Your task to perform on an android device: toggle location history Image 0: 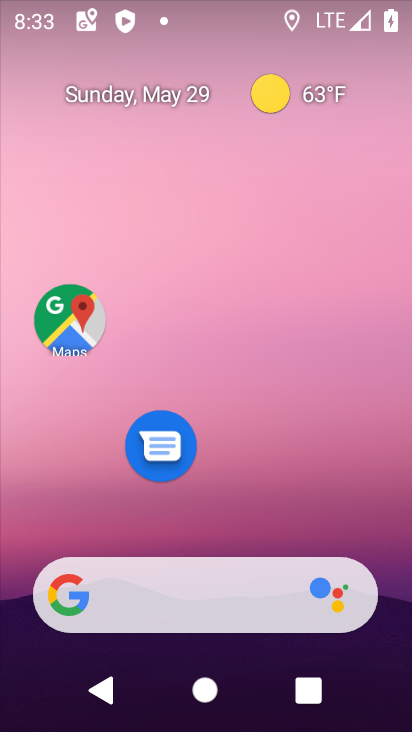
Step 0: drag from (206, 516) to (234, 103)
Your task to perform on an android device: toggle location history Image 1: 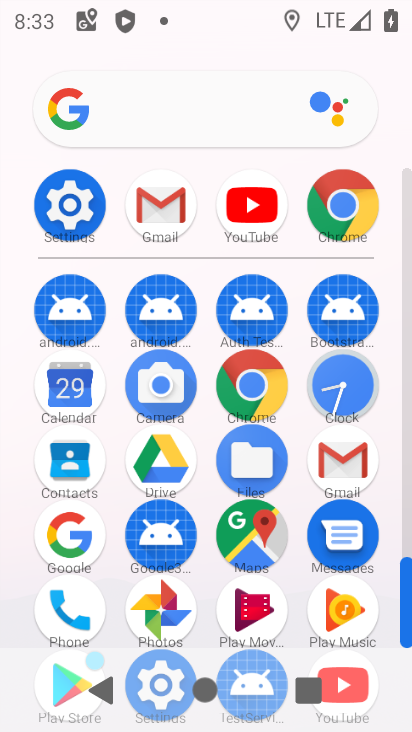
Step 1: click (104, 210)
Your task to perform on an android device: toggle location history Image 2: 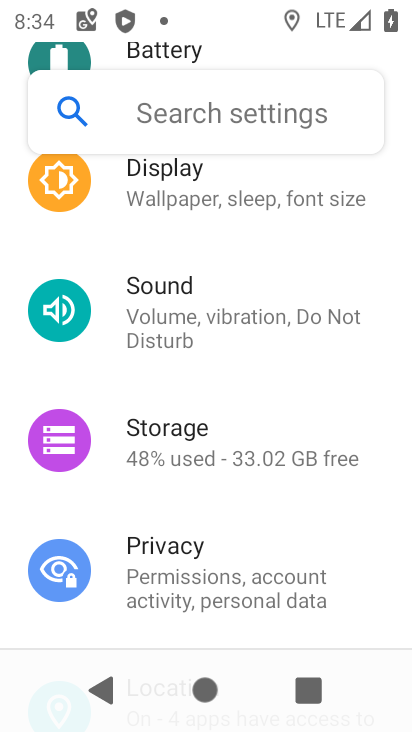
Step 2: drag from (210, 484) to (202, 197)
Your task to perform on an android device: toggle location history Image 3: 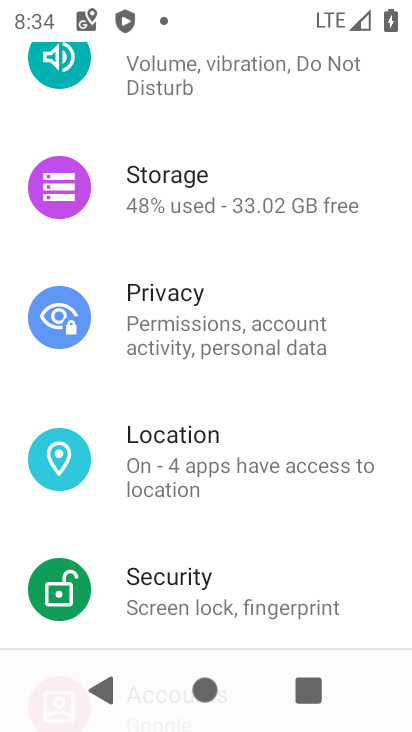
Step 3: click (251, 442)
Your task to perform on an android device: toggle location history Image 4: 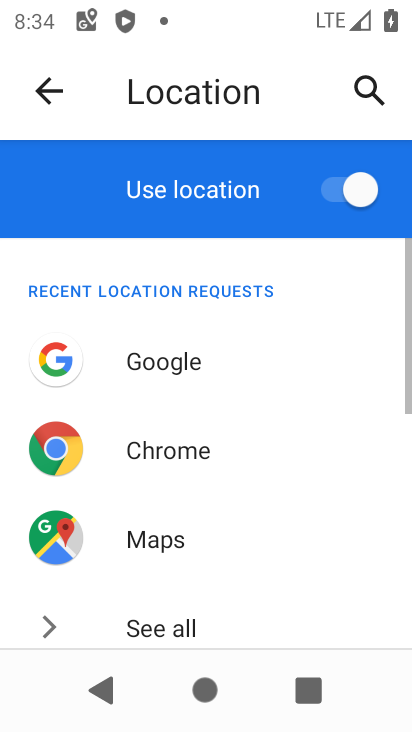
Step 4: click (330, 198)
Your task to perform on an android device: toggle location history Image 5: 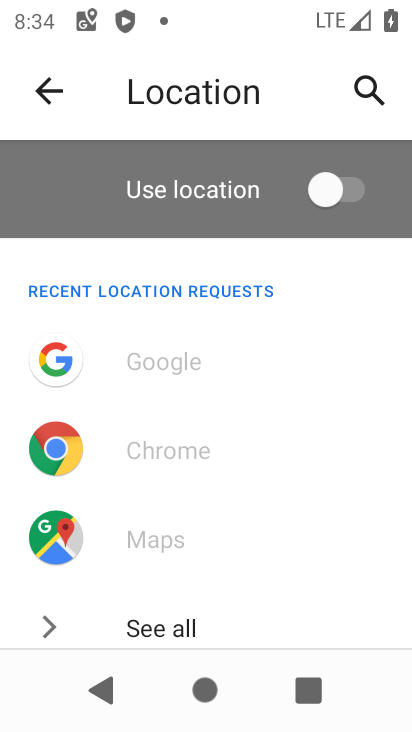
Step 5: click (357, 188)
Your task to perform on an android device: toggle location history Image 6: 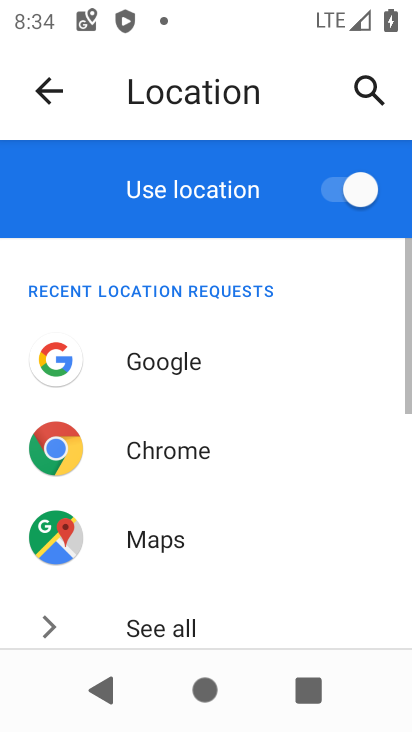
Step 6: drag from (268, 510) to (241, 184)
Your task to perform on an android device: toggle location history Image 7: 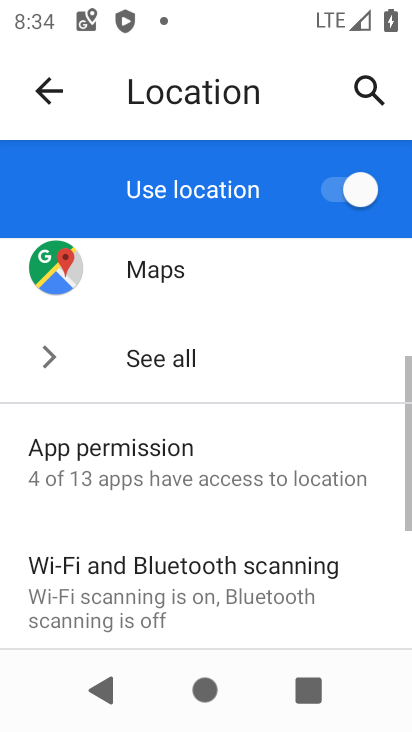
Step 7: drag from (266, 417) to (246, 179)
Your task to perform on an android device: toggle location history Image 8: 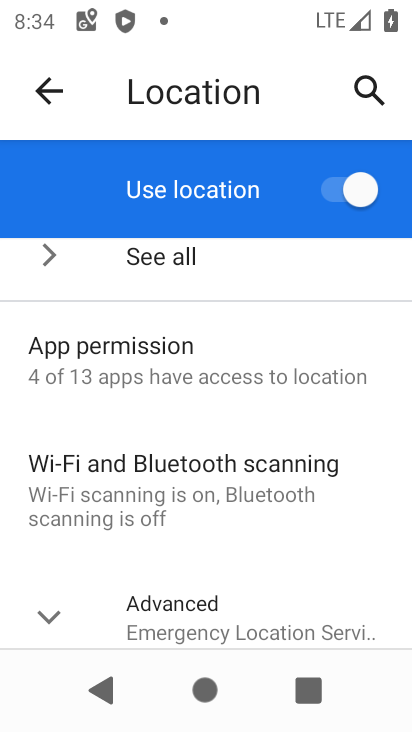
Step 8: click (256, 589)
Your task to perform on an android device: toggle location history Image 9: 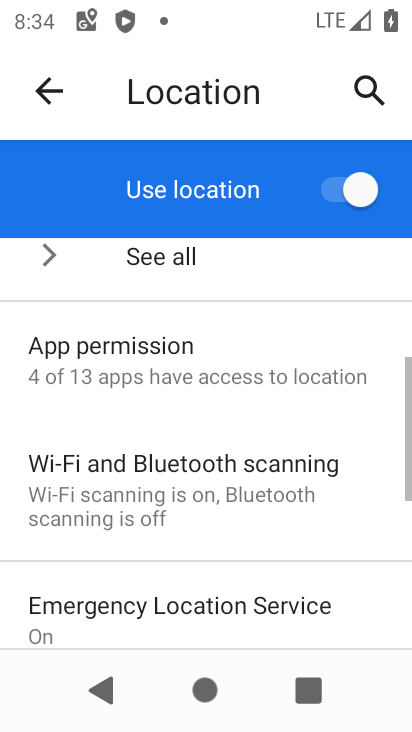
Step 9: drag from (251, 584) to (291, 313)
Your task to perform on an android device: toggle location history Image 10: 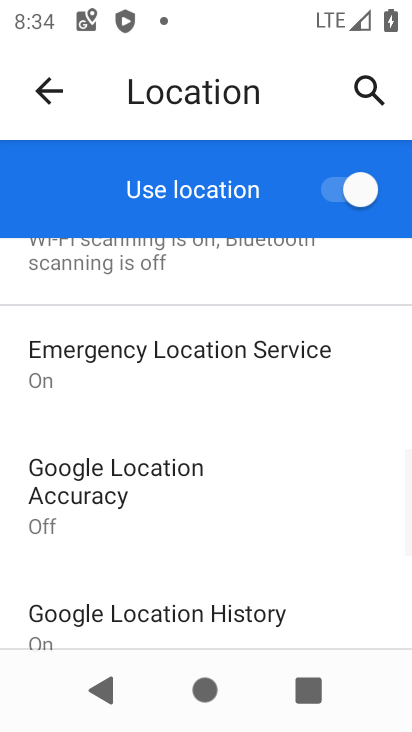
Step 10: drag from (204, 587) to (200, 436)
Your task to perform on an android device: toggle location history Image 11: 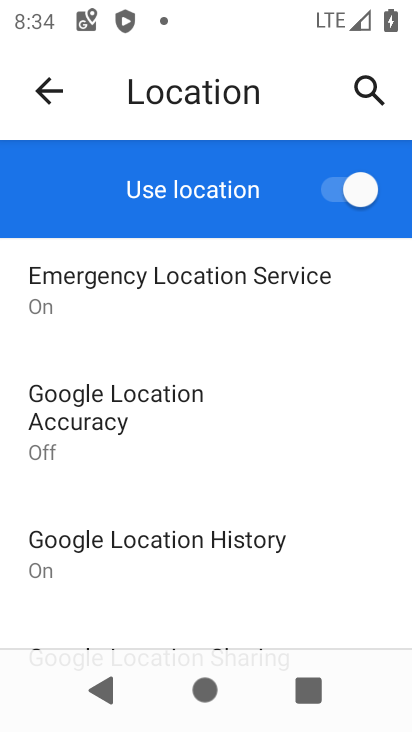
Step 11: click (205, 556)
Your task to perform on an android device: toggle location history Image 12: 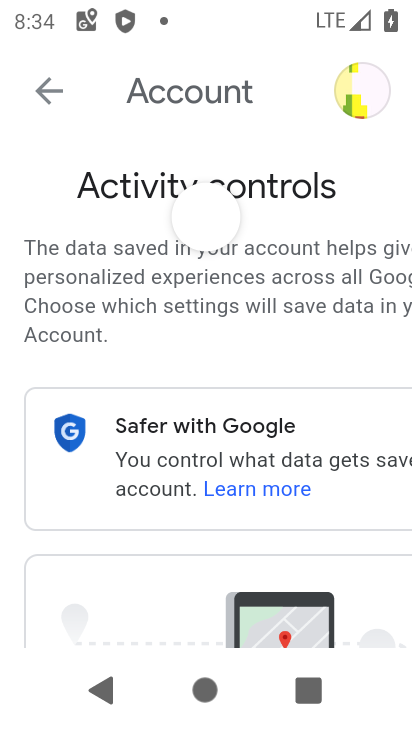
Step 12: drag from (213, 554) to (217, 263)
Your task to perform on an android device: toggle location history Image 13: 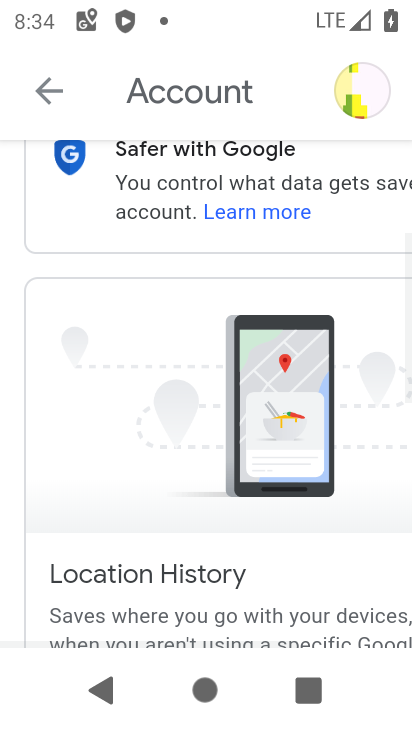
Step 13: drag from (258, 593) to (245, 377)
Your task to perform on an android device: toggle location history Image 14: 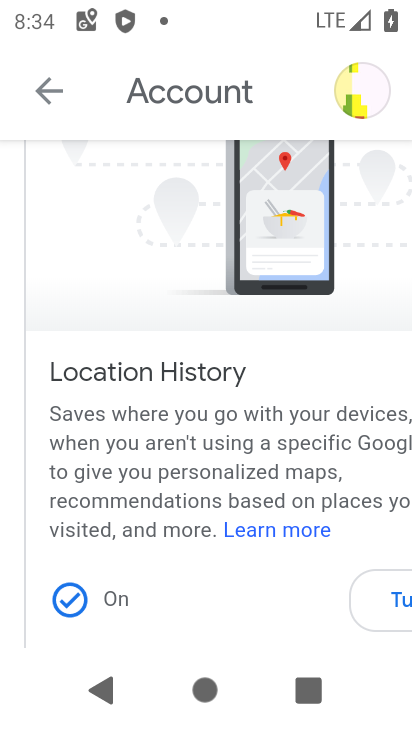
Step 14: click (369, 589)
Your task to perform on an android device: toggle location history Image 15: 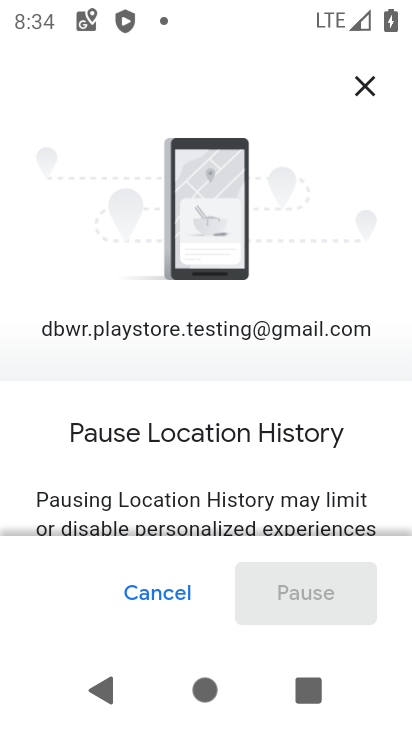
Step 15: drag from (328, 425) to (309, 150)
Your task to perform on an android device: toggle location history Image 16: 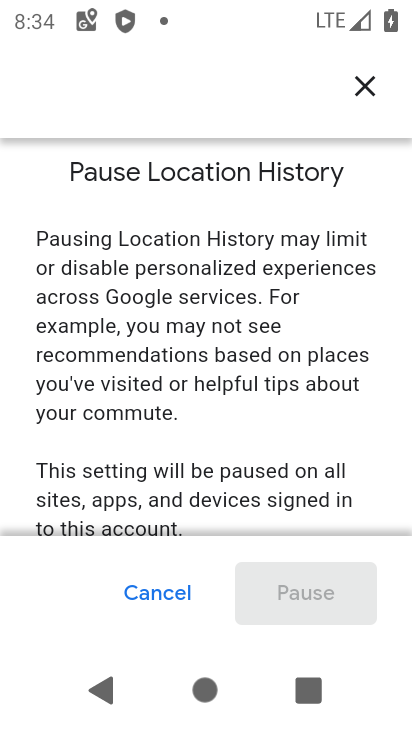
Step 16: drag from (336, 462) to (302, 168)
Your task to perform on an android device: toggle location history Image 17: 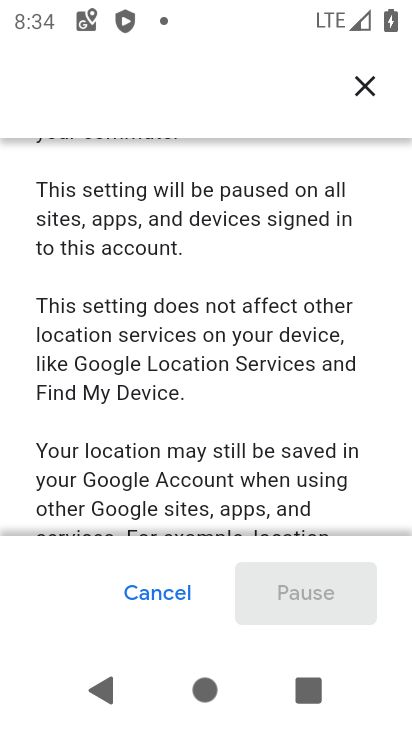
Step 17: drag from (313, 398) to (313, 181)
Your task to perform on an android device: toggle location history Image 18: 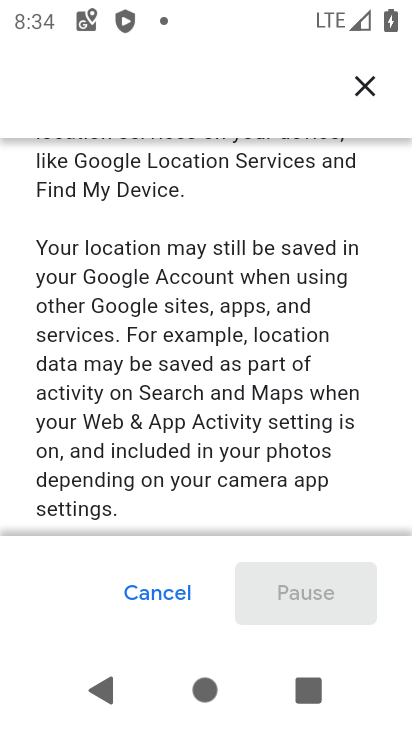
Step 18: drag from (341, 456) to (325, 246)
Your task to perform on an android device: toggle location history Image 19: 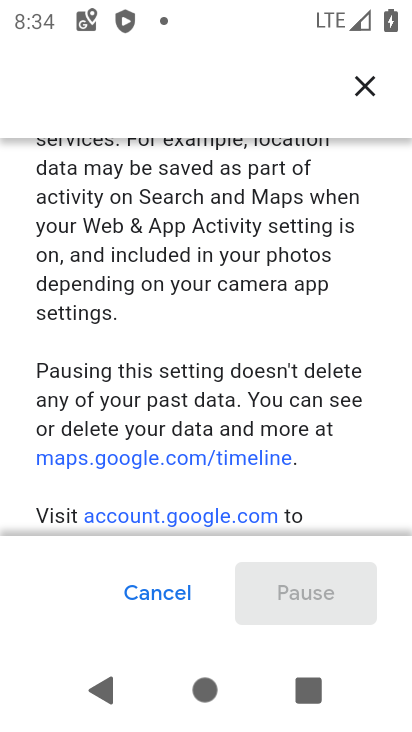
Step 19: drag from (324, 475) to (327, 241)
Your task to perform on an android device: toggle location history Image 20: 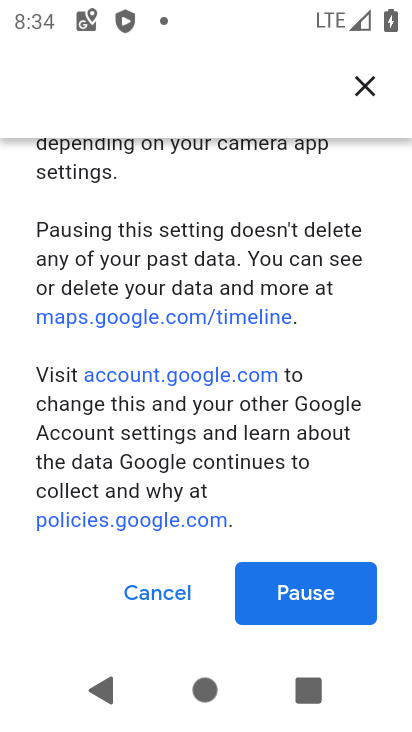
Step 20: click (314, 577)
Your task to perform on an android device: toggle location history Image 21: 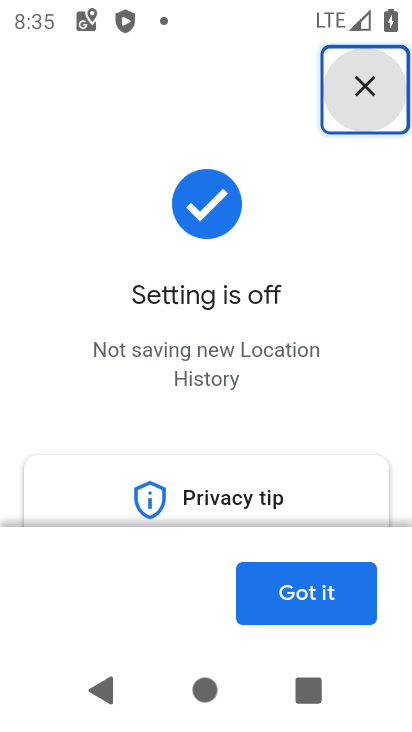
Step 21: task complete